Your task to perform on an android device: turn off location Image 0: 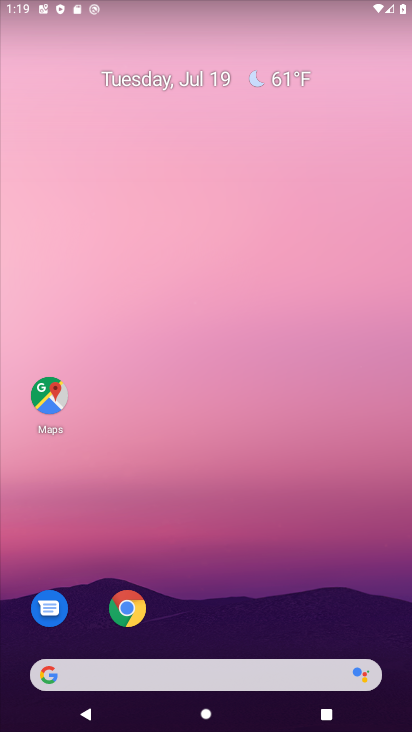
Step 0: drag from (218, 646) to (205, 101)
Your task to perform on an android device: turn off location Image 1: 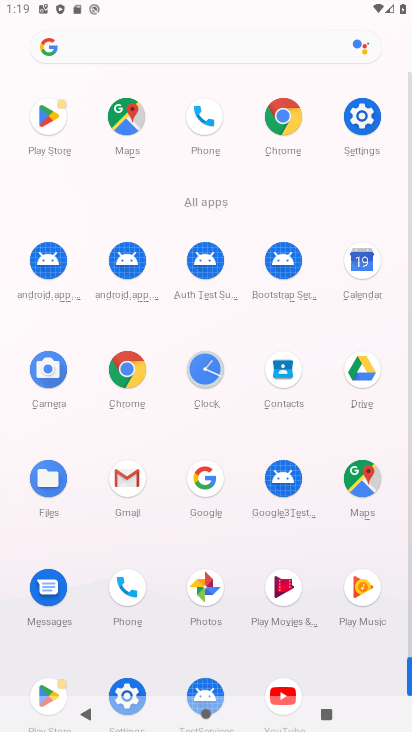
Step 1: click (366, 121)
Your task to perform on an android device: turn off location Image 2: 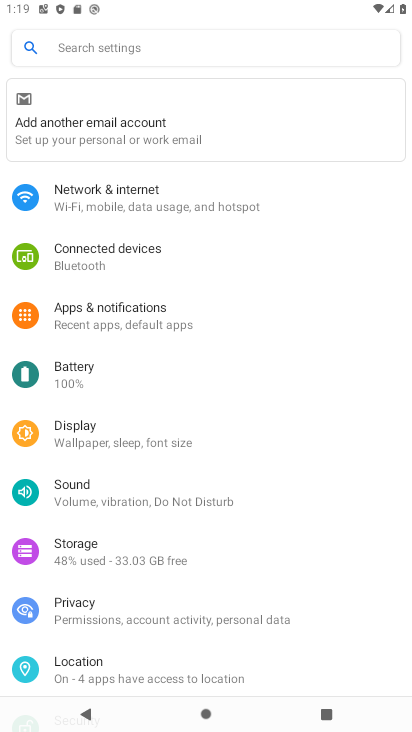
Step 2: click (102, 659)
Your task to perform on an android device: turn off location Image 3: 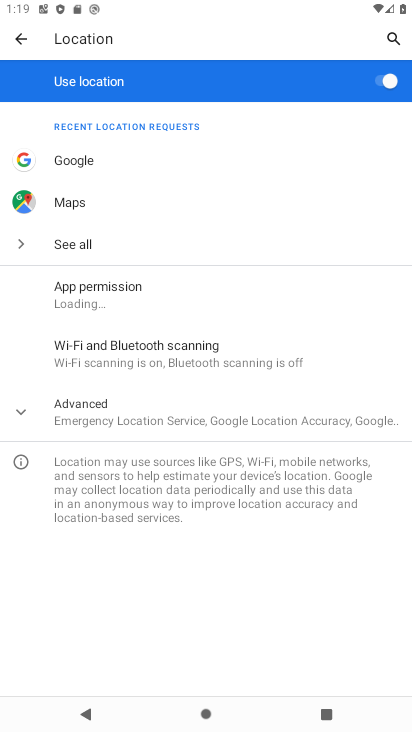
Step 3: click (393, 82)
Your task to perform on an android device: turn off location Image 4: 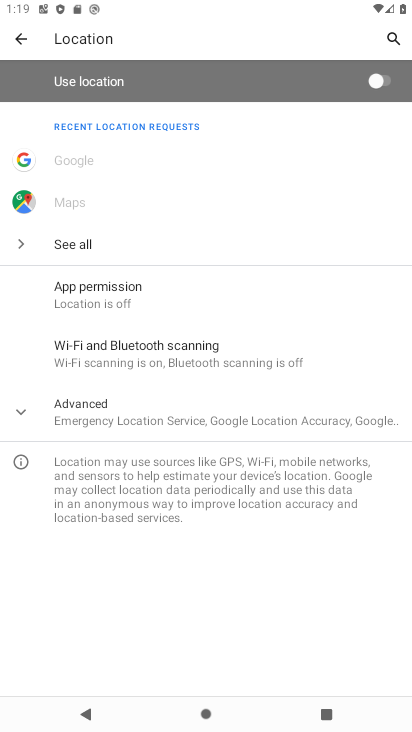
Step 4: task complete